Your task to perform on an android device: change the clock display to show seconds Image 0: 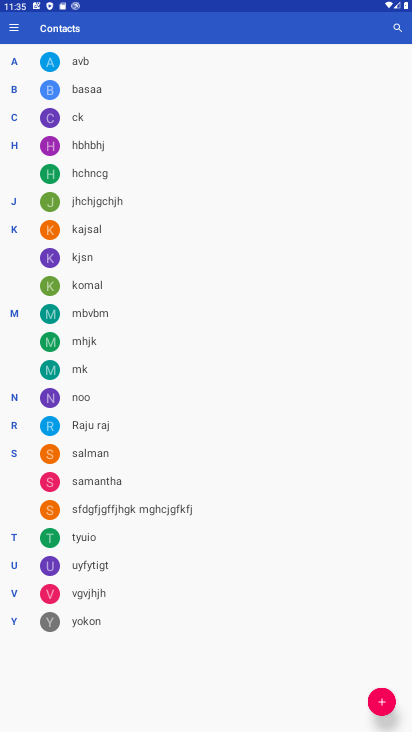
Step 0: press home button
Your task to perform on an android device: change the clock display to show seconds Image 1: 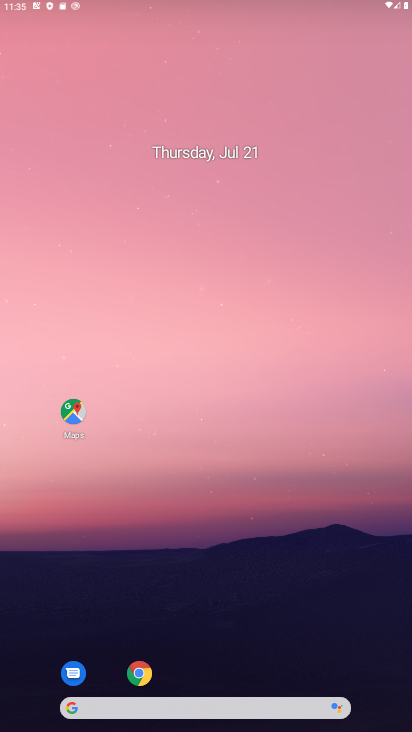
Step 1: drag from (193, 658) to (197, 176)
Your task to perform on an android device: change the clock display to show seconds Image 2: 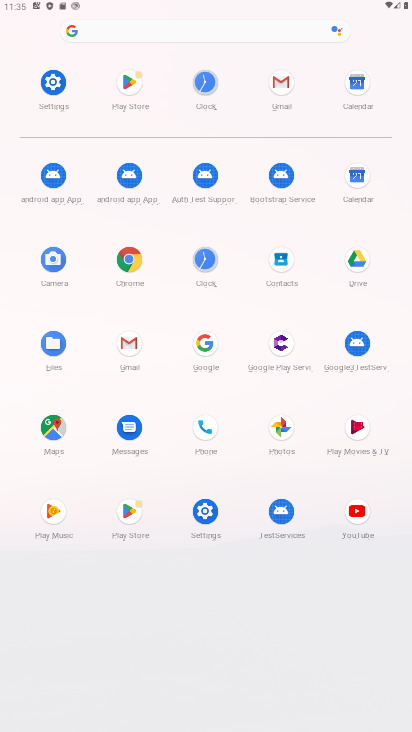
Step 2: click (195, 79)
Your task to perform on an android device: change the clock display to show seconds Image 3: 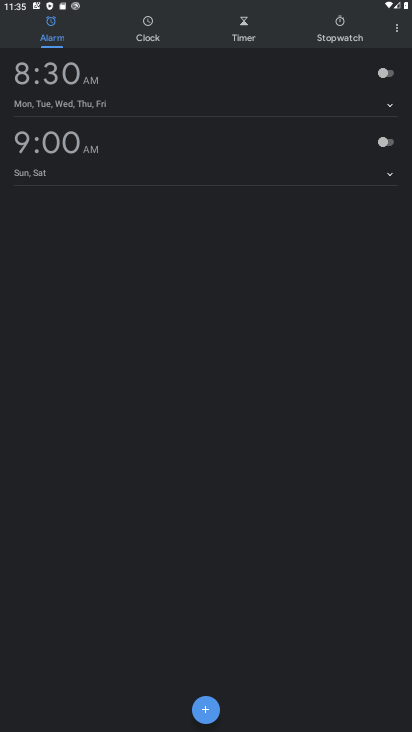
Step 3: click (395, 39)
Your task to perform on an android device: change the clock display to show seconds Image 4: 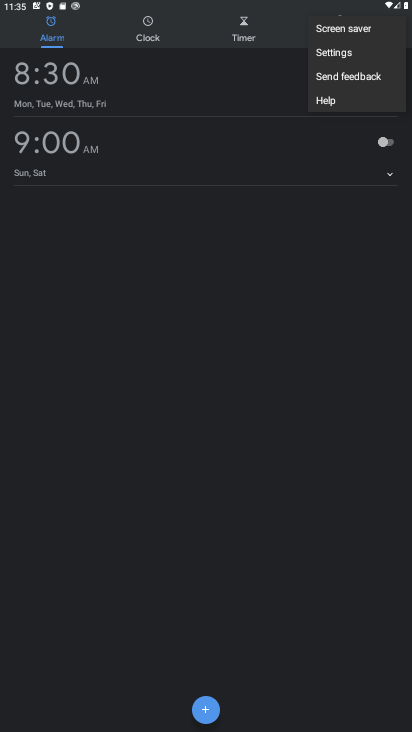
Step 4: click (365, 60)
Your task to perform on an android device: change the clock display to show seconds Image 5: 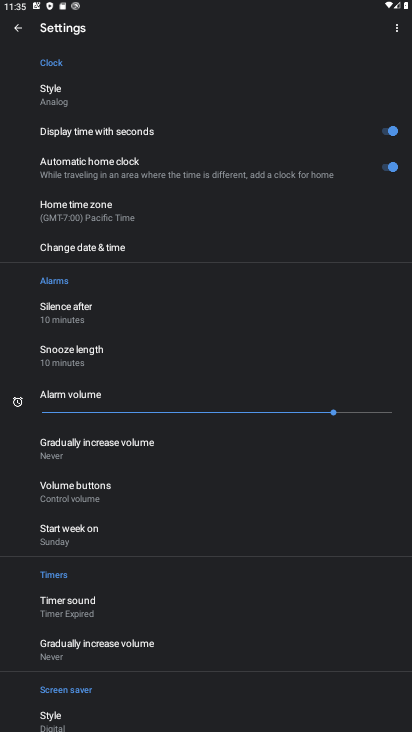
Step 5: task complete